Your task to perform on an android device: turn off location Image 0: 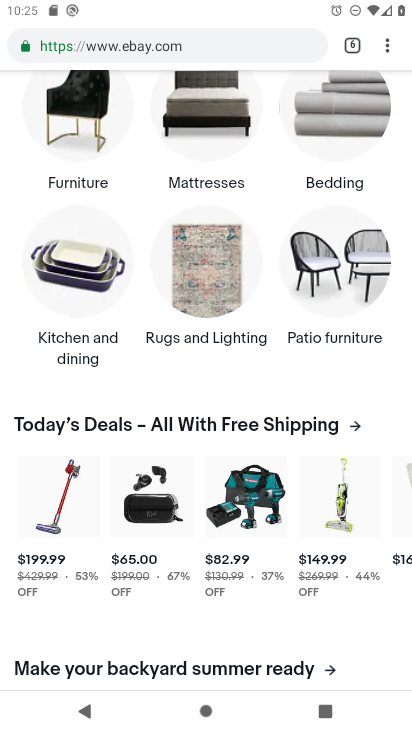
Step 0: press home button
Your task to perform on an android device: turn off location Image 1: 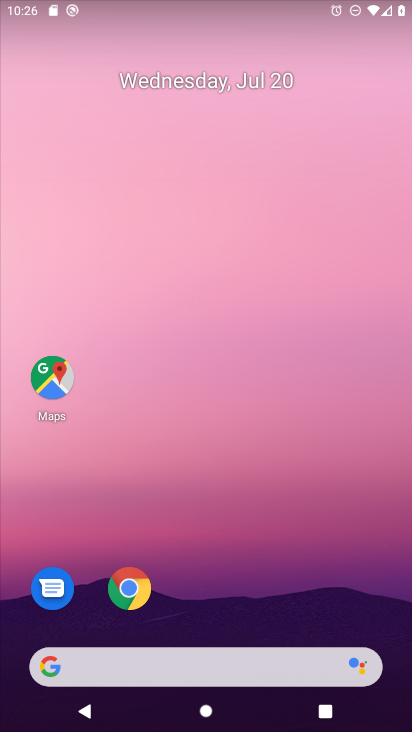
Step 1: drag from (356, 626) to (329, 7)
Your task to perform on an android device: turn off location Image 2: 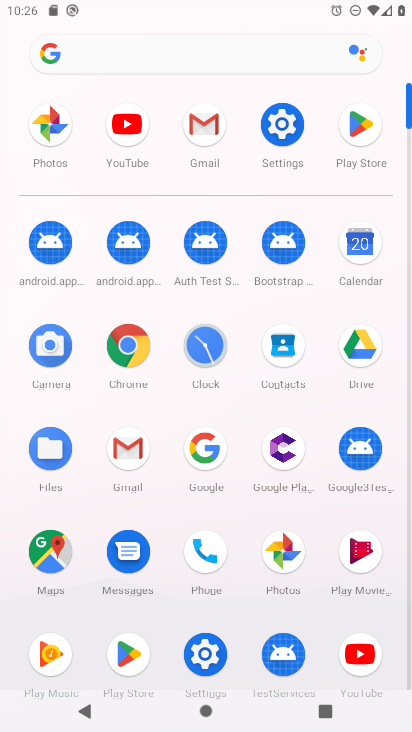
Step 2: click (273, 127)
Your task to perform on an android device: turn off location Image 3: 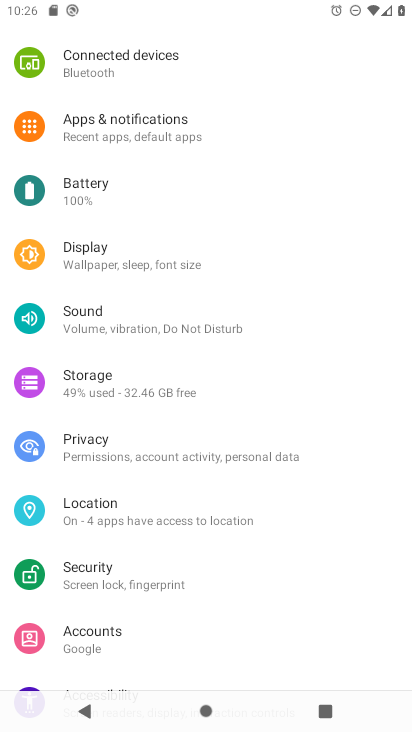
Step 3: click (99, 515)
Your task to perform on an android device: turn off location Image 4: 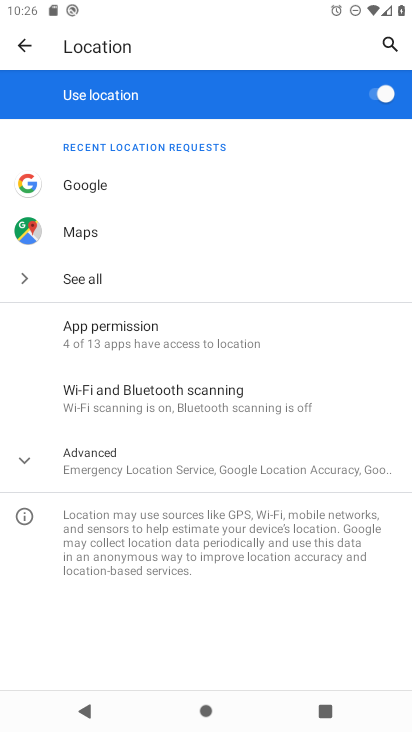
Step 4: click (379, 97)
Your task to perform on an android device: turn off location Image 5: 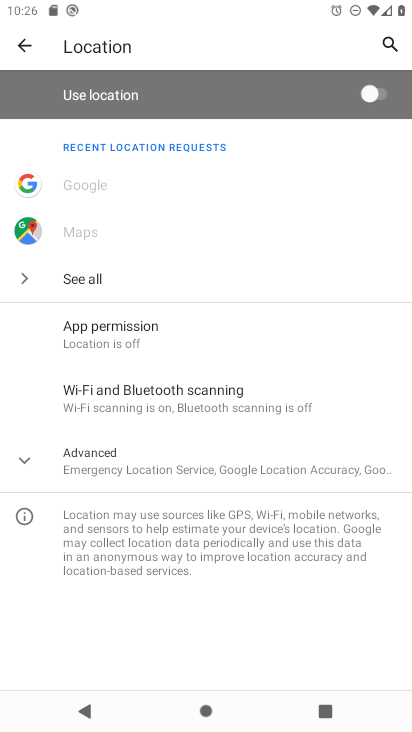
Step 5: task complete